Your task to perform on an android device: change your default location settings in chrome Image 0: 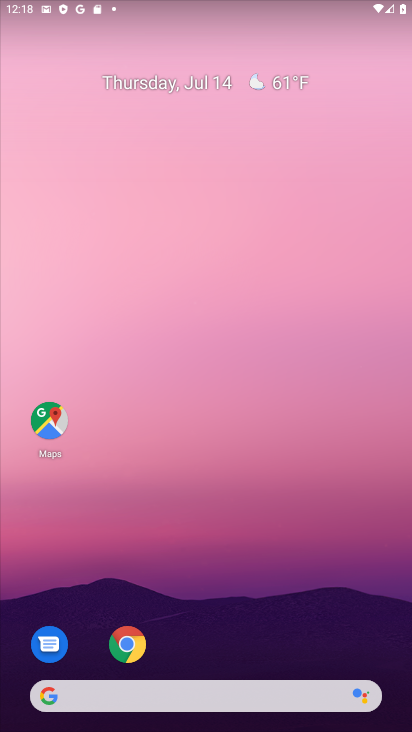
Step 0: click (132, 639)
Your task to perform on an android device: change your default location settings in chrome Image 1: 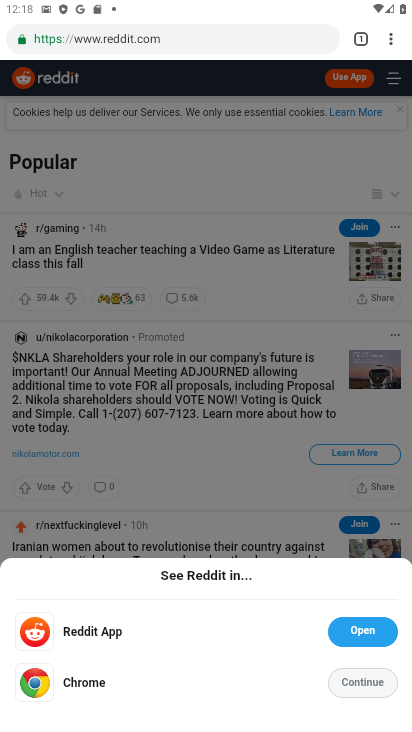
Step 1: click (389, 30)
Your task to perform on an android device: change your default location settings in chrome Image 2: 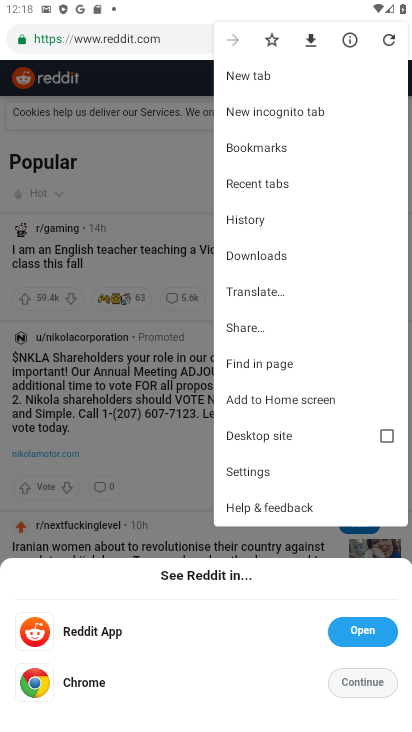
Step 2: click (275, 469)
Your task to perform on an android device: change your default location settings in chrome Image 3: 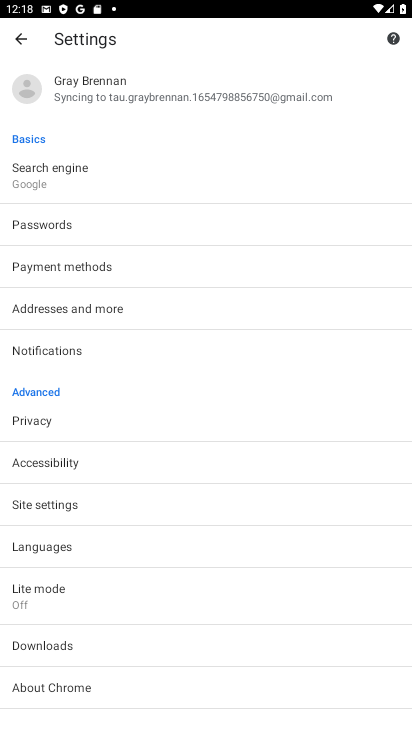
Step 3: click (47, 505)
Your task to perform on an android device: change your default location settings in chrome Image 4: 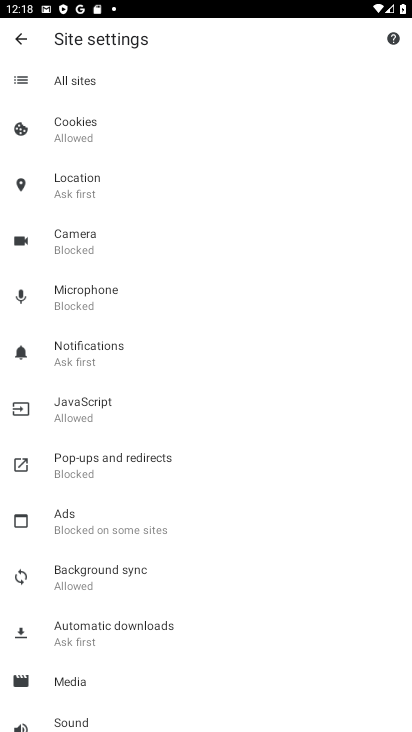
Step 4: click (87, 198)
Your task to perform on an android device: change your default location settings in chrome Image 5: 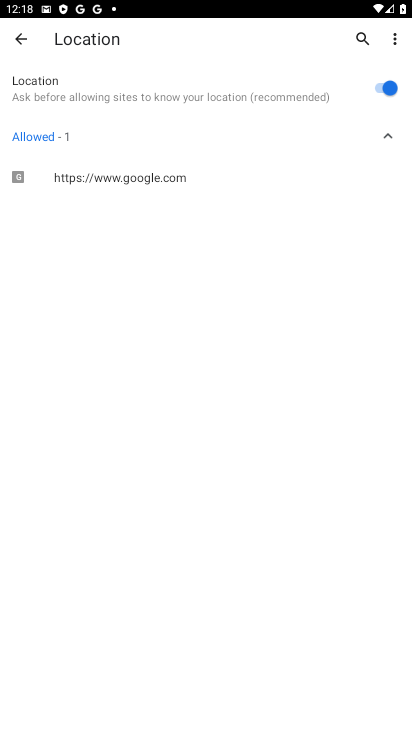
Step 5: click (395, 87)
Your task to perform on an android device: change your default location settings in chrome Image 6: 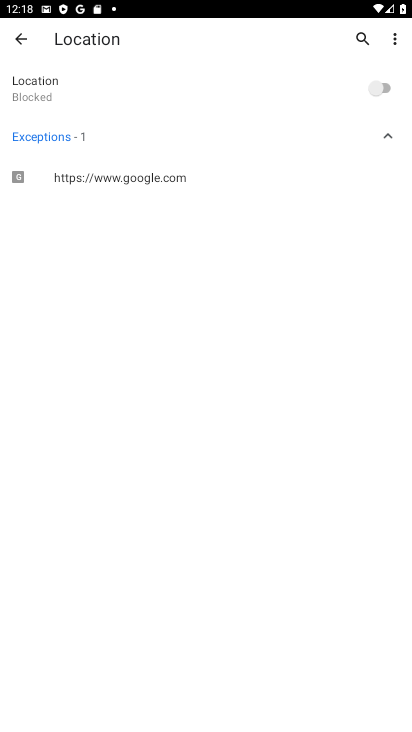
Step 6: task complete